Your task to perform on an android device: Search for macbook on amazon, select the first entry, add it to the cart, then select checkout. Image 0: 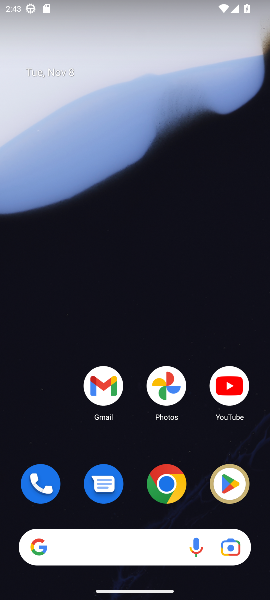
Step 0: click (171, 470)
Your task to perform on an android device: Search for macbook on amazon, select the first entry, add it to the cart, then select checkout. Image 1: 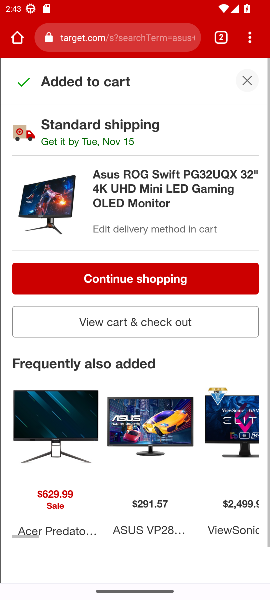
Step 1: click (111, 38)
Your task to perform on an android device: Search for macbook on amazon, select the first entry, add it to the cart, then select checkout. Image 2: 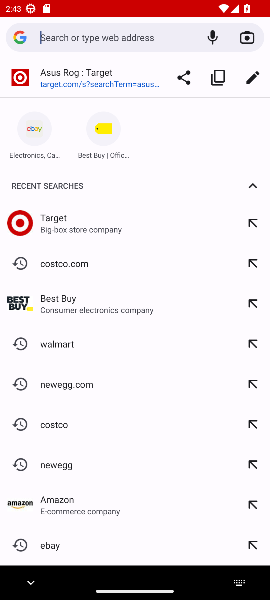
Step 2: click (81, 509)
Your task to perform on an android device: Search for macbook on amazon, select the first entry, add it to the cart, then select checkout. Image 3: 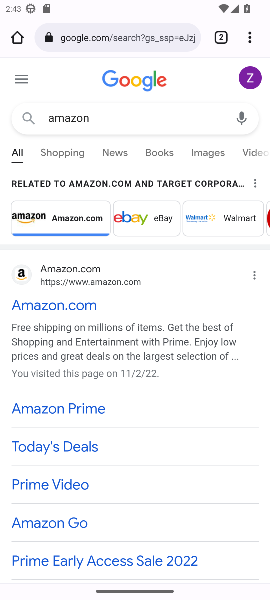
Step 3: click (49, 302)
Your task to perform on an android device: Search for macbook on amazon, select the first entry, add it to the cart, then select checkout. Image 4: 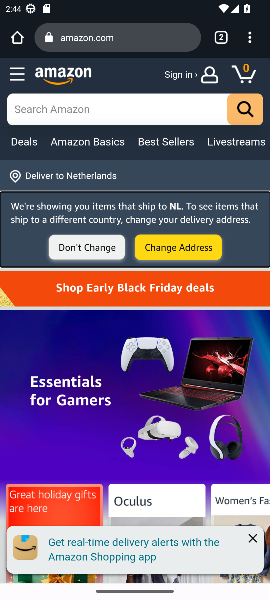
Step 4: type "macbook"
Your task to perform on an android device: Search for macbook on amazon, select the first entry, add it to the cart, then select checkout. Image 5: 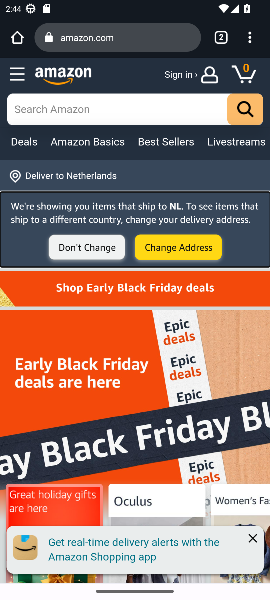
Step 5: click (37, 118)
Your task to perform on an android device: Search for macbook on amazon, select the first entry, add it to the cart, then select checkout. Image 6: 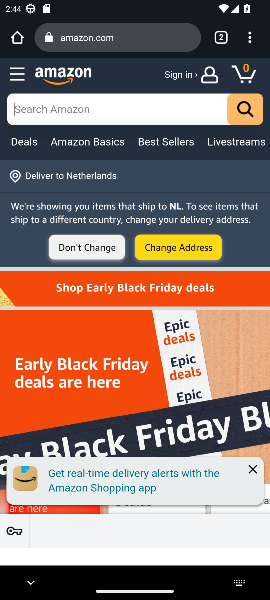
Step 6: type "macbook"
Your task to perform on an android device: Search for macbook on amazon, select the first entry, add it to the cart, then select checkout. Image 7: 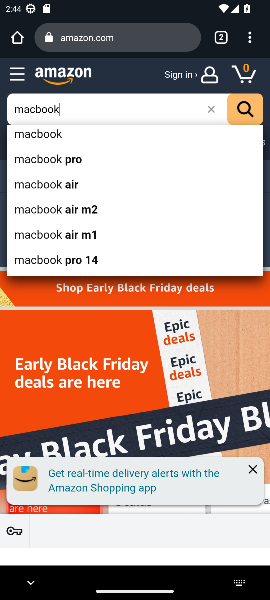
Step 7: click (249, 105)
Your task to perform on an android device: Search for macbook on amazon, select the first entry, add it to the cart, then select checkout. Image 8: 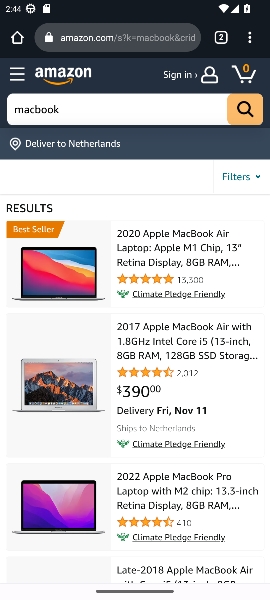
Step 8: click (183, 240)
Your task to perform on an android device: Search for macbook on amazon, select the first entry, add it to the cart, then select checkout. Image 9: 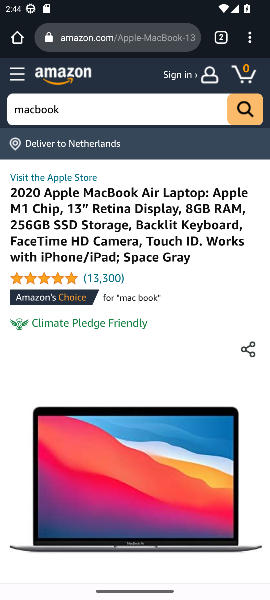
Step 9: drag from (142, 350) to (158, 45)
Your task to perform on an android device: Search for macbook on amazon, select the first entry, add it to the cart, then select checkout. Image 10: 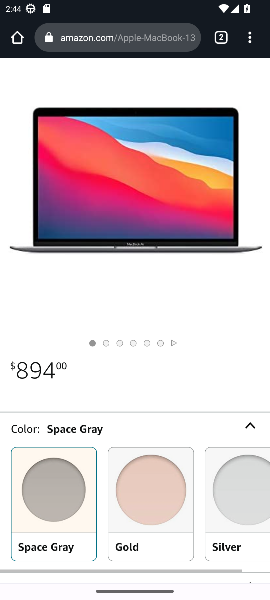
Step 10: click (152, 454)
Your task to perform on an android device: Search for macbook on amazon, select the first entry, add it to the cart, then select checkout. Image 11: 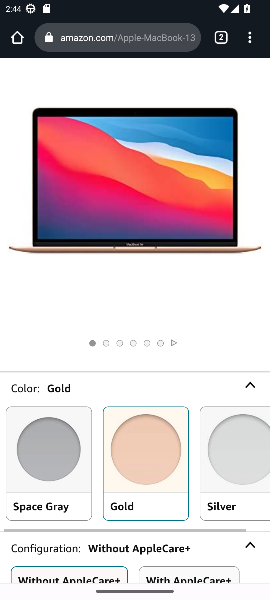
Step 11: drag from (126, 387) to (141, 170)
Your task to perform on an android device: Search for macbook on amazon, select the first entry, add it to the cart, then select checkout. Image 12: 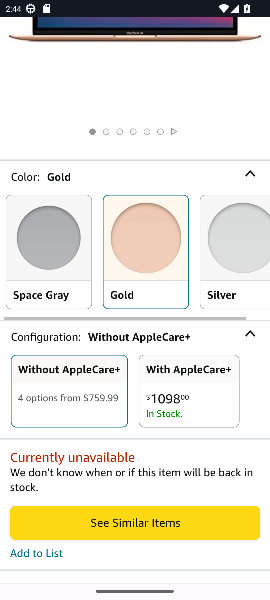
Step 12: click (47, 242)
Your task to perform on an android device: Search for macbook on amazon, select the first entry, add it to the cart, then select checkout. Image 13: 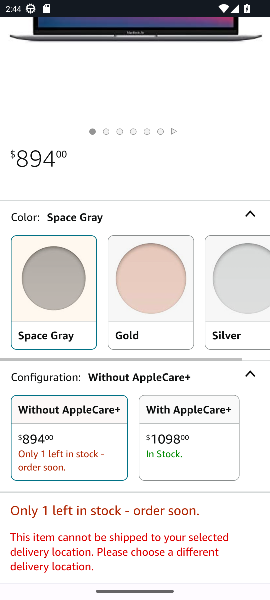
Step 13: drag from (122, 523) to (152, 156)
Your task to perform on an android device: Search for macbook on amazon, select the first entry, add it to the cart, then select checkout. Image 14: 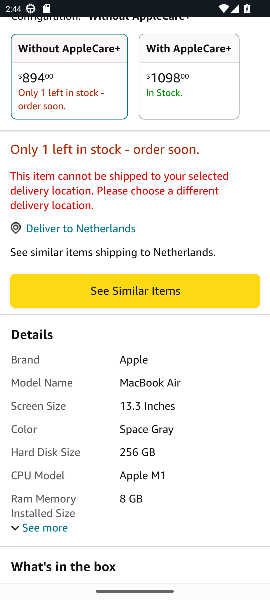
Step 14: drag from (255, 67) to (221, 284)
Your task to perform on an android device: Search for macbook on amazon, select the first entry, add it to the cart, then select checkout. Image 15: 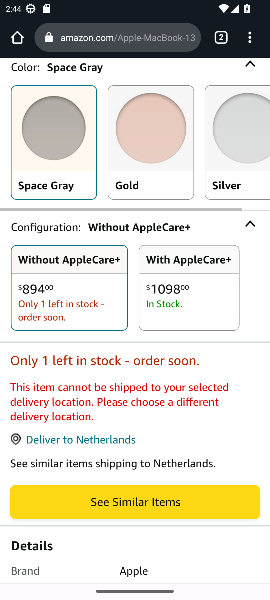
Step 15: click (241, 152)
Your task to perform on an android device: Search for macbook on amazon, select the first entry, add it to the cart, then select checkout. Image 16: 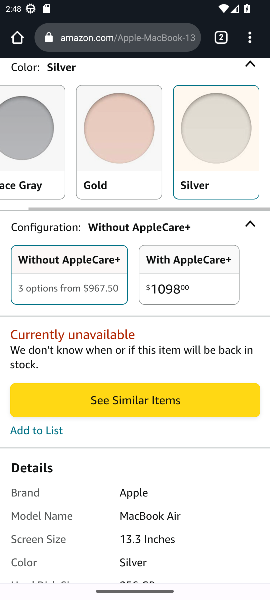
Step 16: task complete